Your task to perform on an android device: choose inbox layout in the gmail app Image 0: 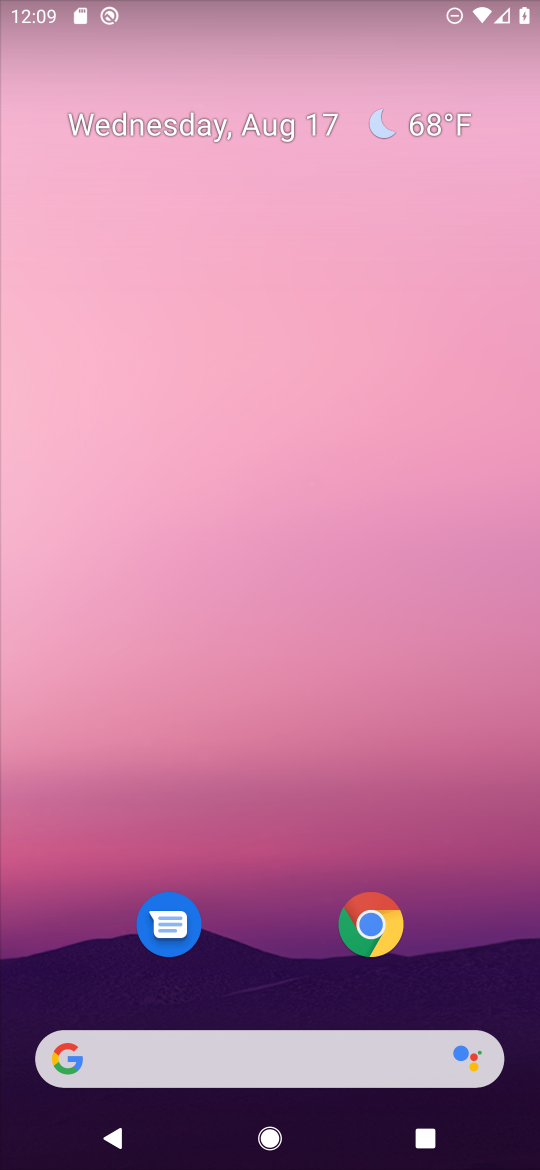
Step 0: drag from (302, 970) to (295, 218)
Your task to perform on an android device: choose inbox layout in the gmail app Image 1: 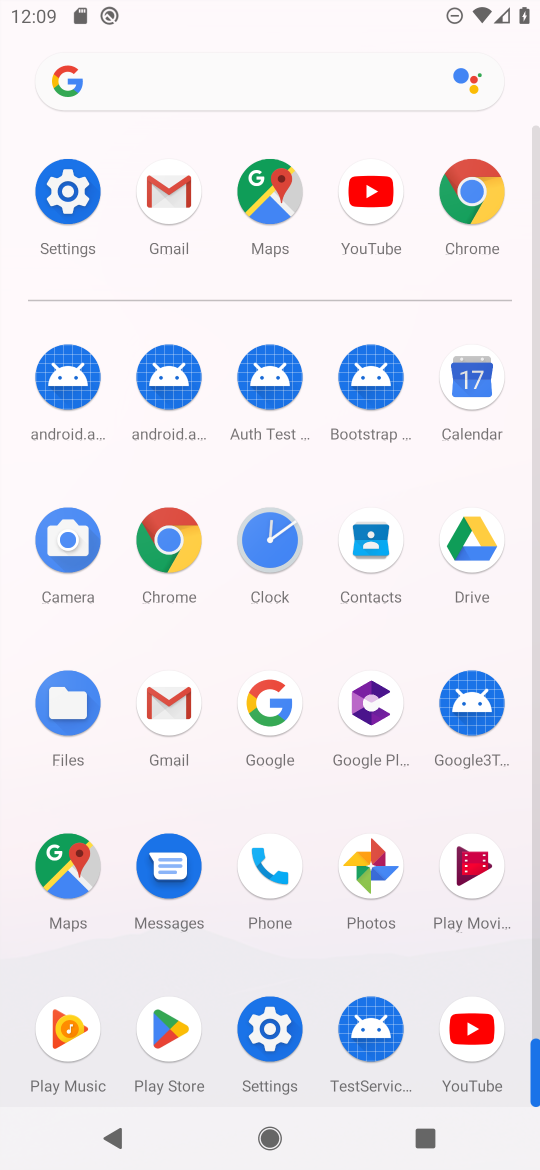
Step 1: click (182, 199)
Your task to perform on an android device: choose inbox layout in the gmail app Image 2: 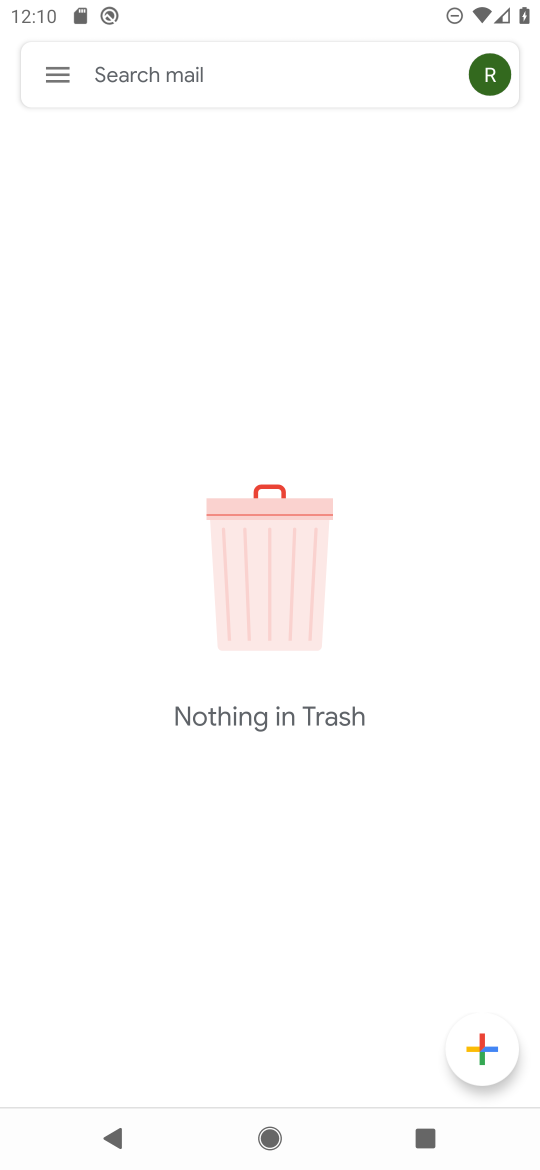
Step 2: click (63, 82)
Your task to perform on an android device: choose inbox layout in the gmail app Image 3: 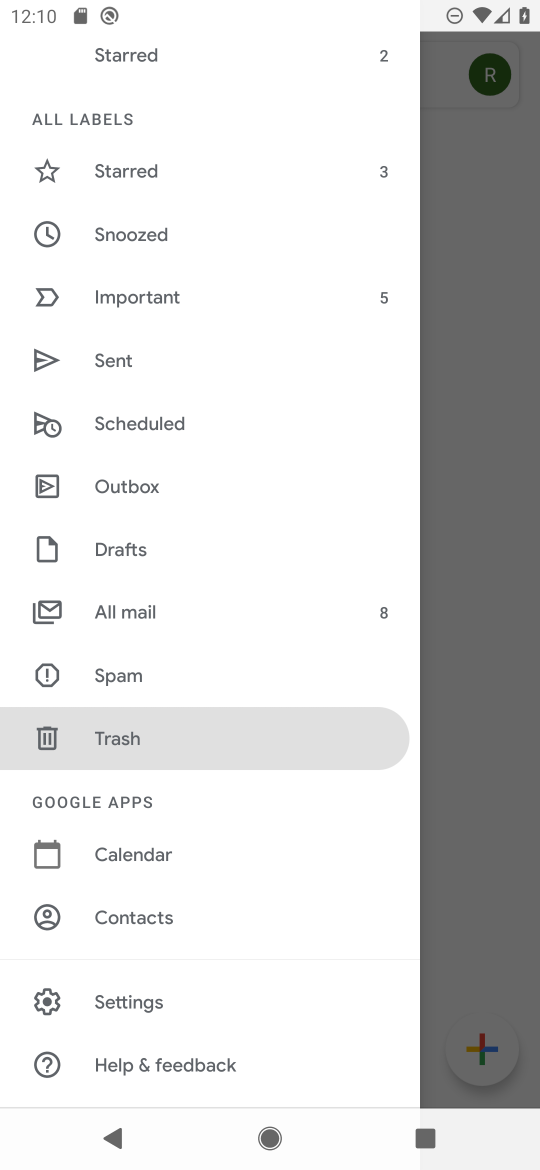
Step 3: click (214, 1000)
Your task to perform on an android device: choose inbox layout in the gmail app Image 4: 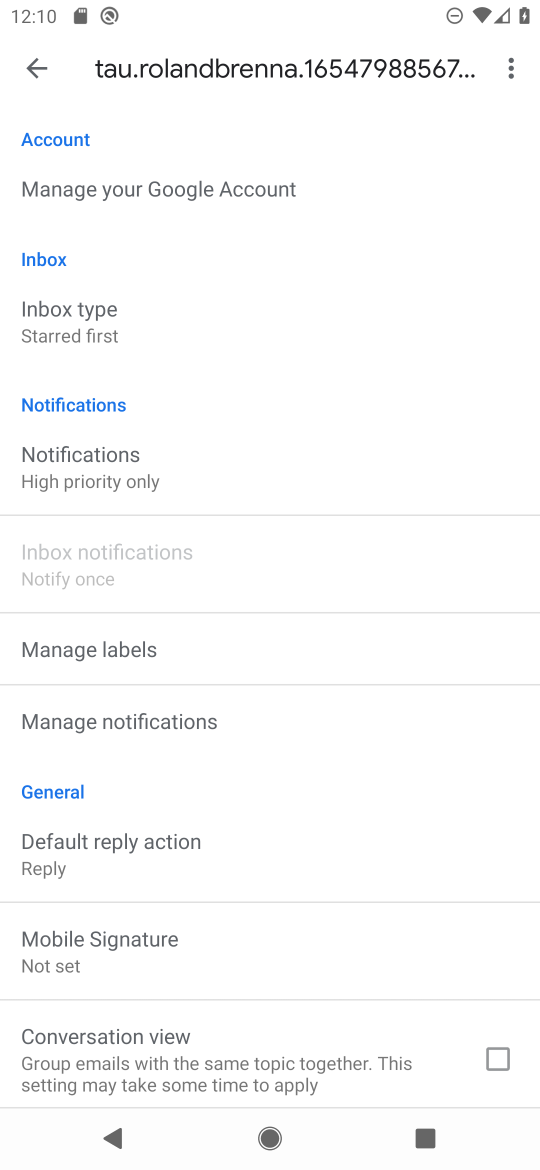
Step 4: click (97, 324)
Your task to perform on an android device: choose inbox layout in the gmail app Image 5: 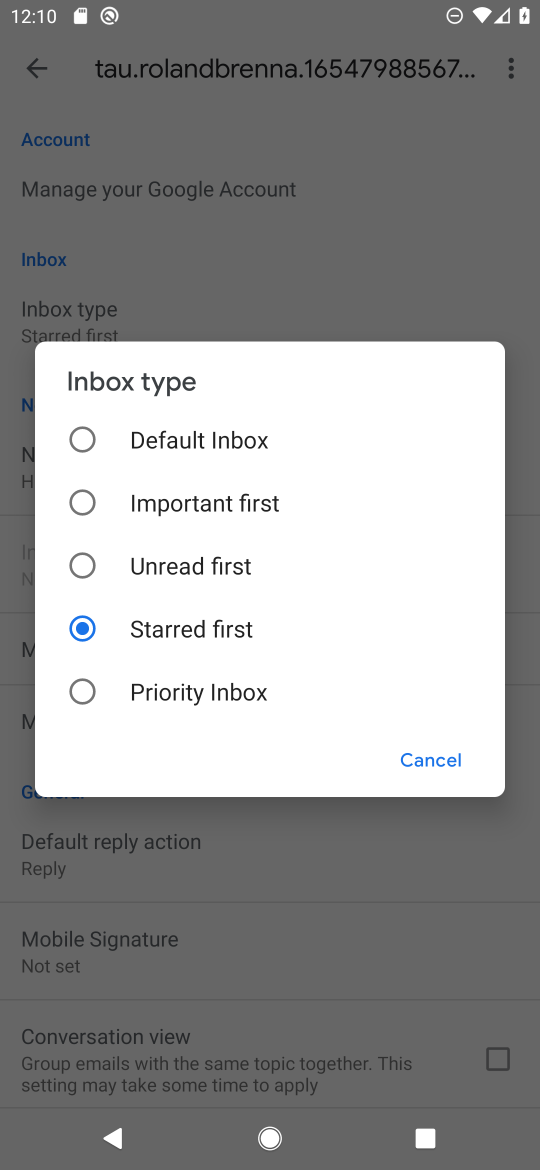
Step 5: click (223, 495)
Your task to perform on an android device: choose inbox layout in the gmail app Image 6: 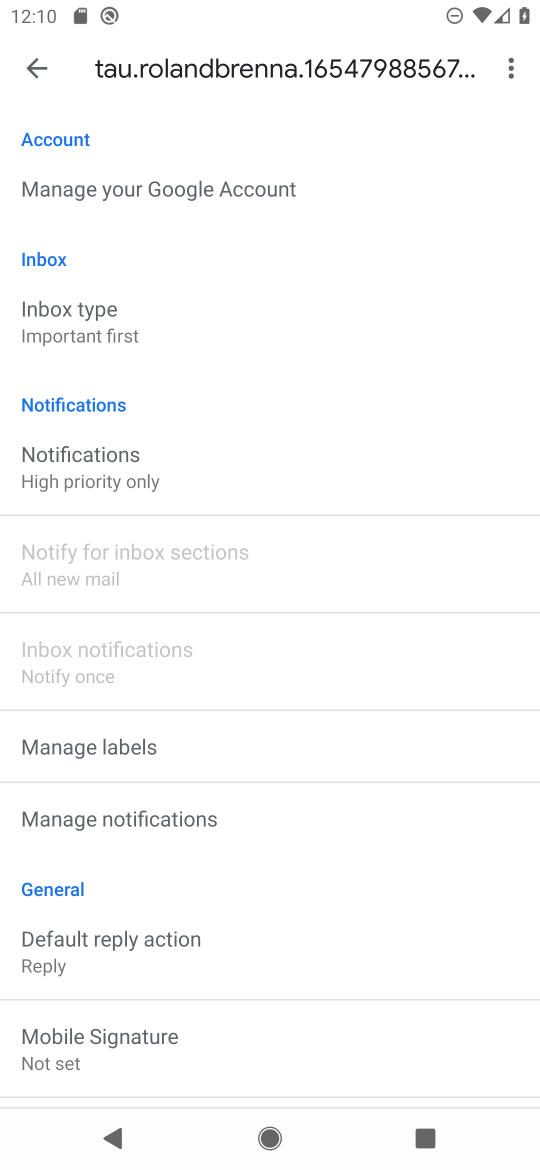
Step 6: task complete